Your task to perform on an android device: toggle notifications settings in the gmail app Image 0: 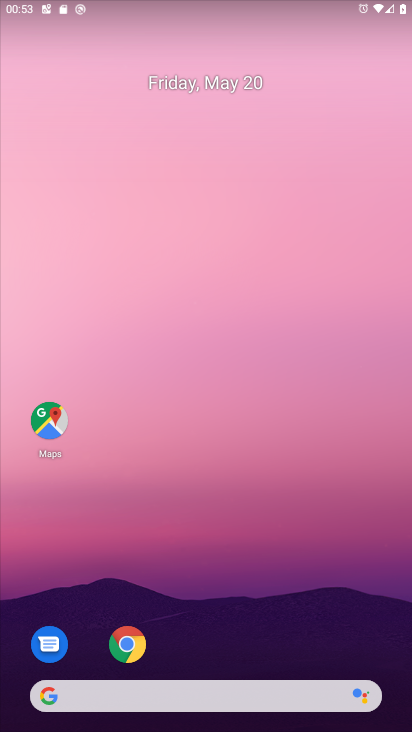
Step 0: drag from (227, 640) to (243, 229)
Your task to perform on an android device: toggle notifications settings in the gmail app Image 1: 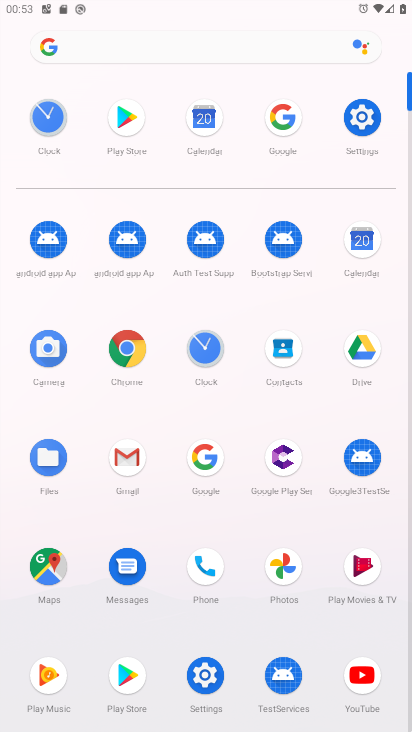
Step 1: click (135, 457)
Your task to perform on an android device: toggle notifications settings in the gmail app Image 2: 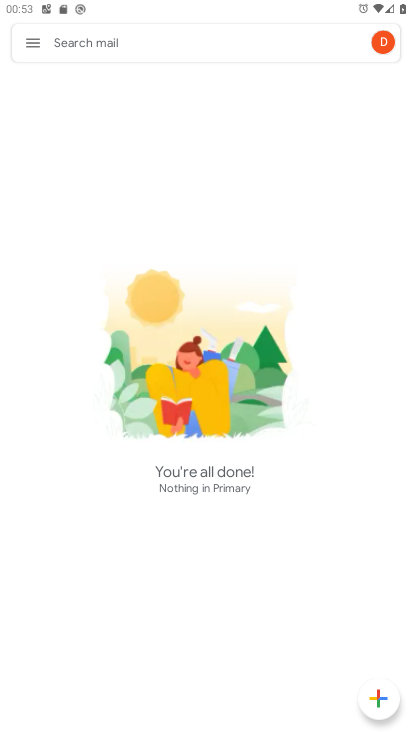
Step 2: click (33, 42)
Your task to perform on an android device: toggle notifications settings in the gmail app Image 3: 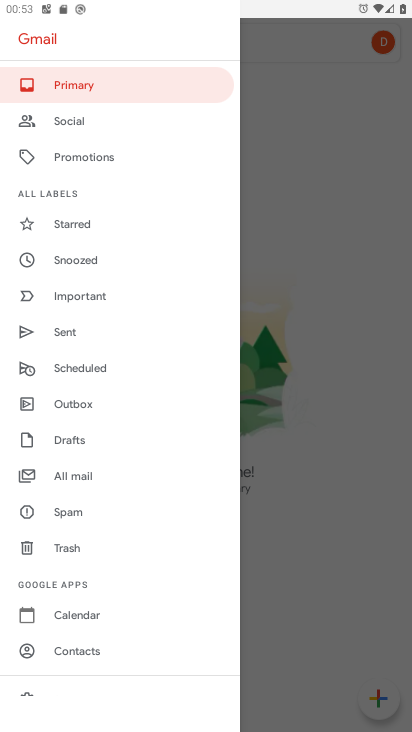
Step 3: drag from (89, 647) to (89, 366)
Your task to perform on an android device: toggle notifications settings in the gmail app Image 4: 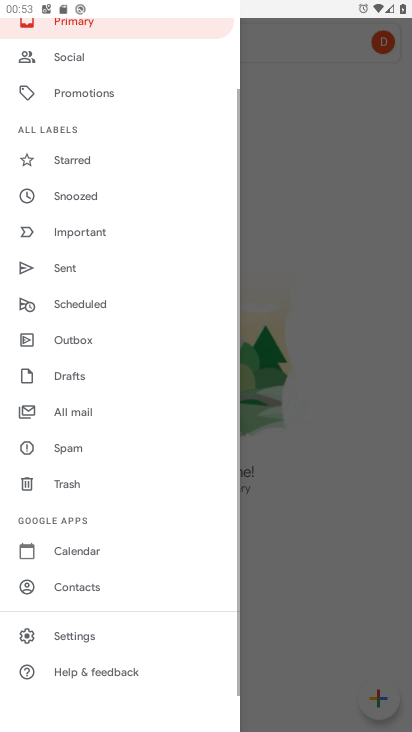
Step 4: click (80, 630)
Your task to perform on an android device: toggle notifications settings in the gmail app Image 5: 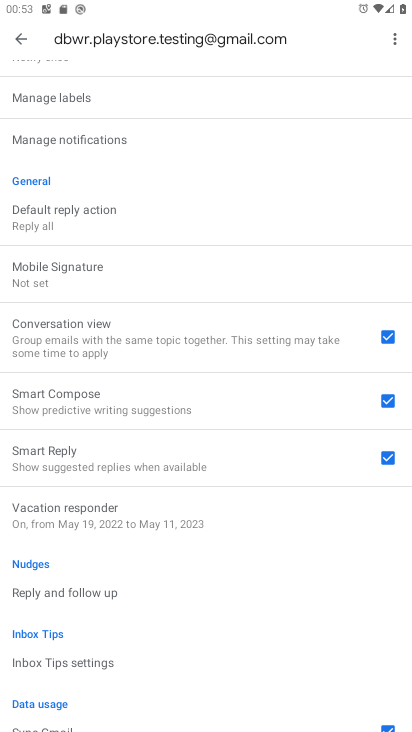
Step 5: click (20, 37)
Your task to perform on an android device: toggle notifications settings in the gmail app Image 6: 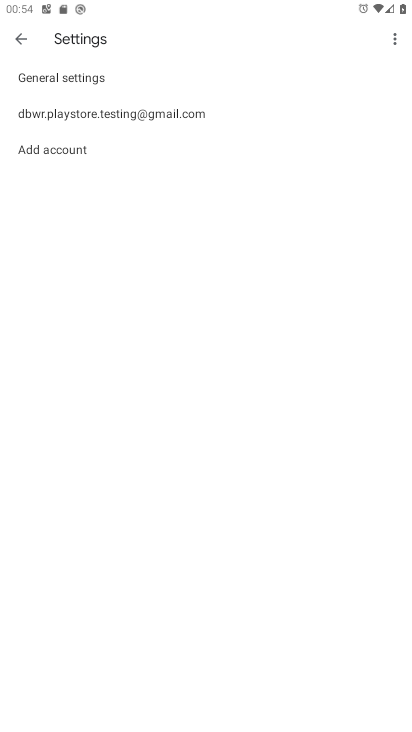
Step 6: click (74, 76)
Your task to perform on an android device: toggle notifications settings in the gmail app Image 7: 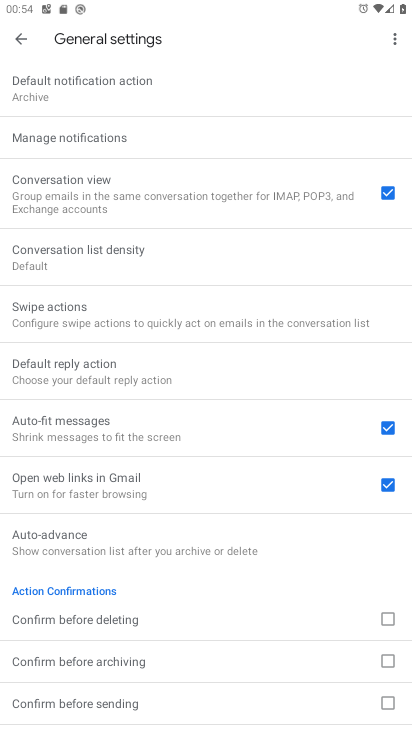
Step 7: click (86, 136)
Your task to perform on an android device: toggle notifications settings in the gmail app Image 8: 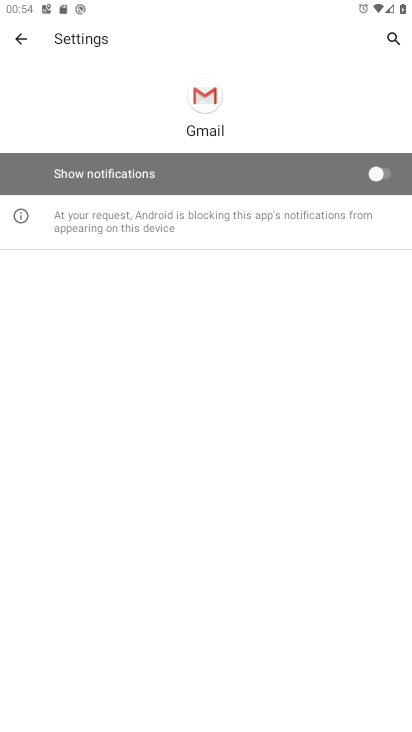
Step 8: click (385, 169)
Your task to perform on an android device: toggle notifications settings in the gmail app Image 9: 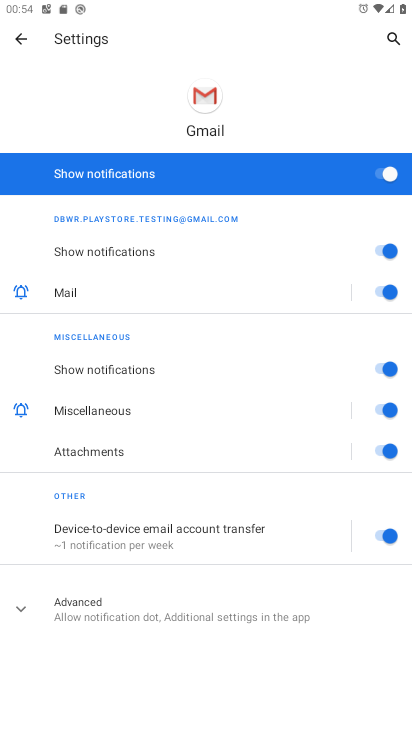
Step 9: task complete